Your task to perform on an android device: remove spam from my inbox in the gmail app Image 0: 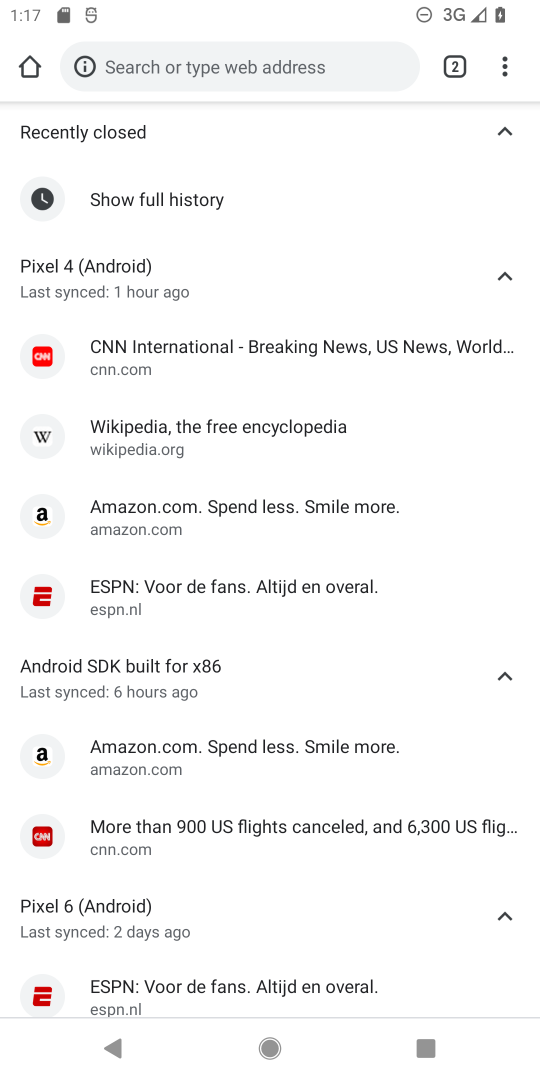
Step 0: press home button
Your task to perform on an android device: remove spam from my inbox in the gmail app Image 1: 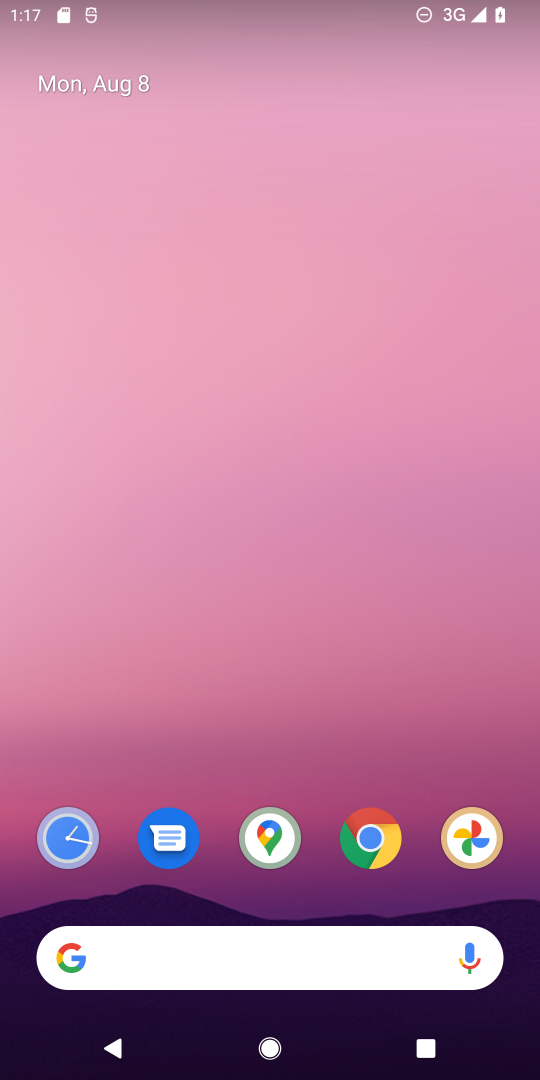
Step 1: drag from (200, 886) to (291, 267)
Your task to perform on an android device: remove spam from my inbox in the gmail app Image 2: 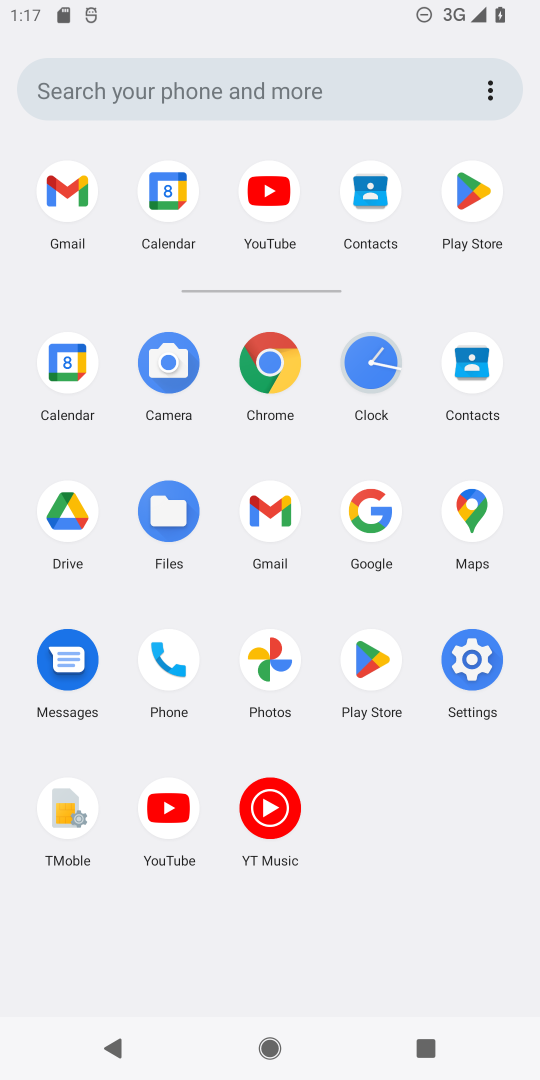
Step 2: click (65, 195)
Your task to perform on an android device: remove spam from my inbox in the gmail app Image 3: 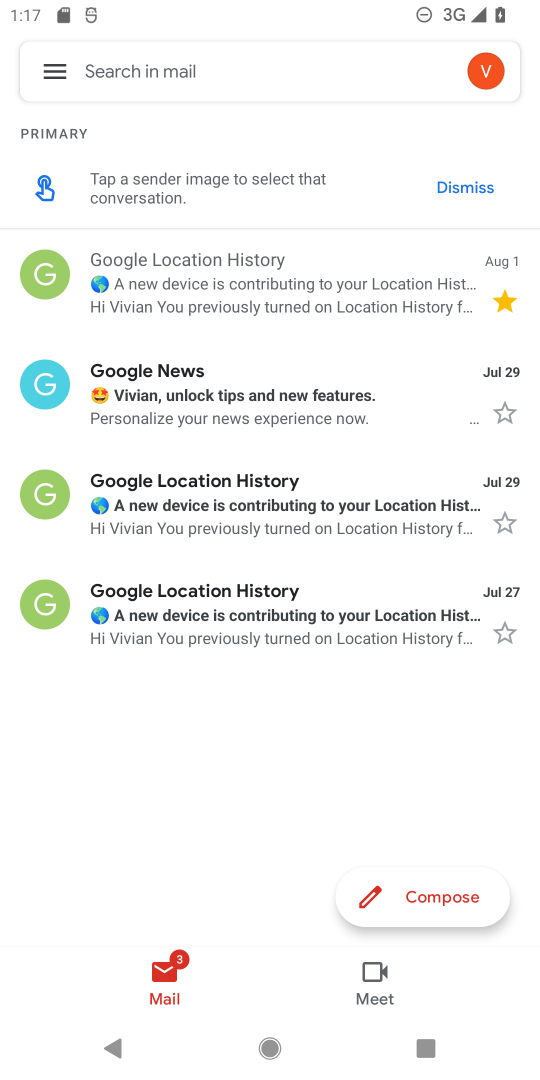
Step 3: click (48, 68)
Your task to perform on an android device: remove spam from my inbox in the gmail app Image 4: 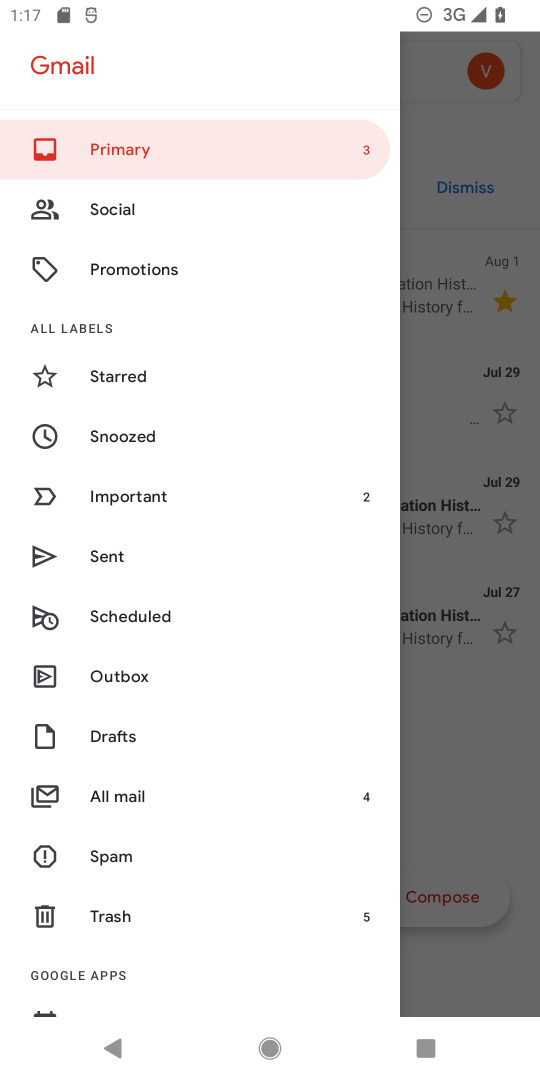
Step 4: click (101, 861)
Your task to perform on an android device: remove spam from my inbox in the gmail app Image 5: 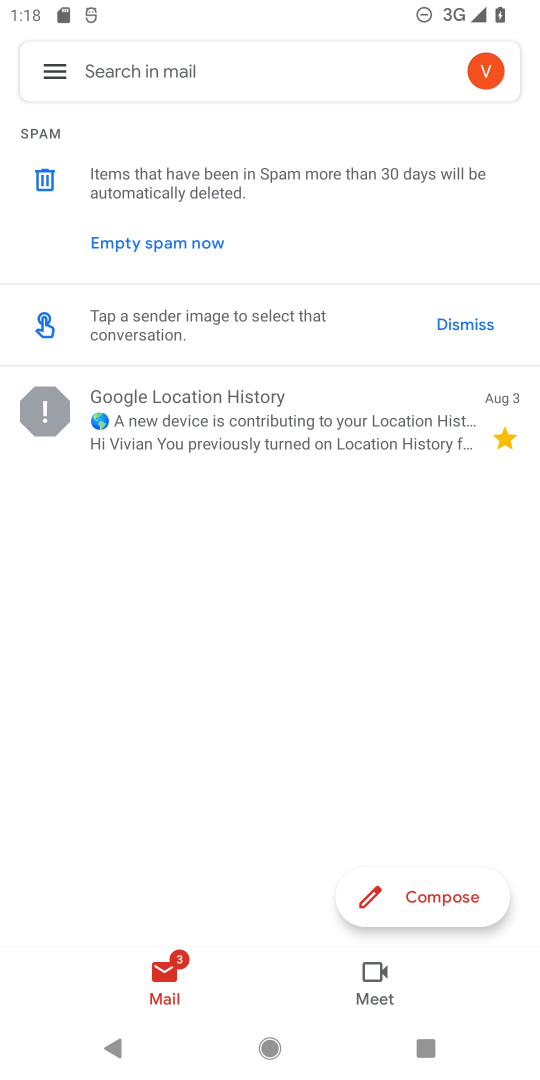
Step 5: click (60, 70)
Your task to perform on an android device: remove spam from my inbox in the gmail app Image 6: 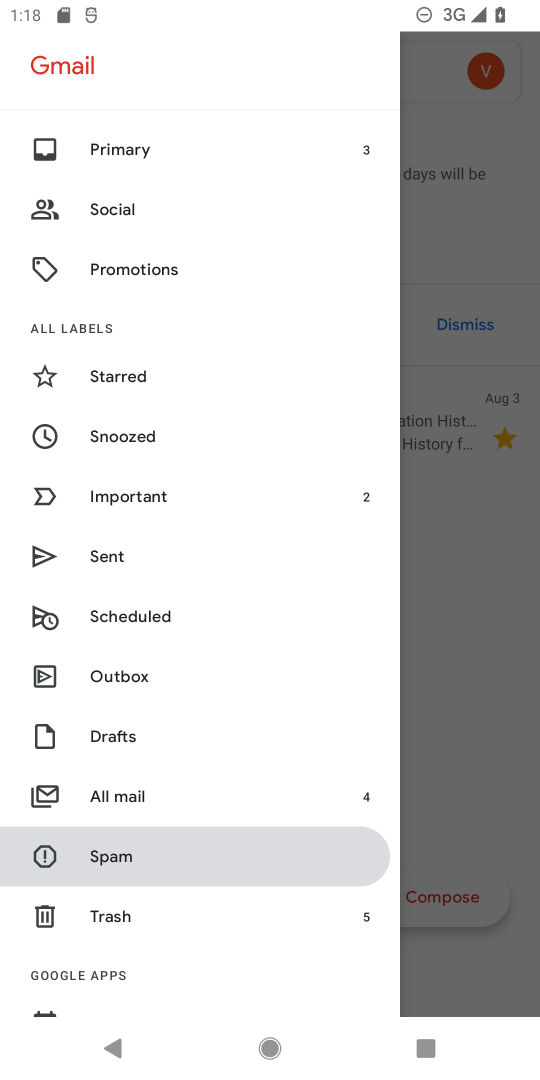
Step 6: click (119, 863)
Your task to perform on an android device: remove spam from my inbox in the gmail app Image 7: 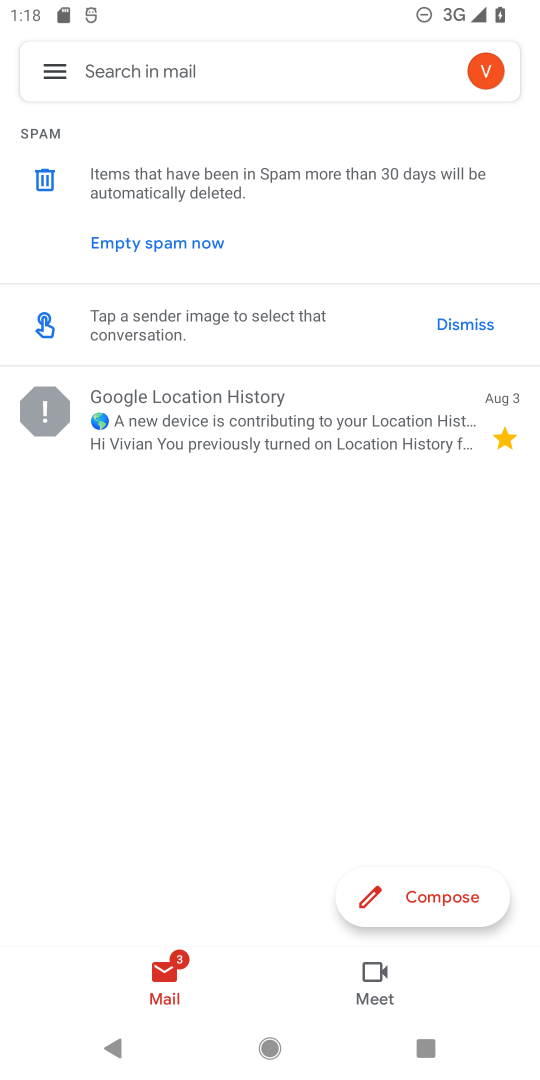
Step 7: click (166, 247)
Your task to perform on an android device: remove spam from my inbox in the gmail app Image 8: 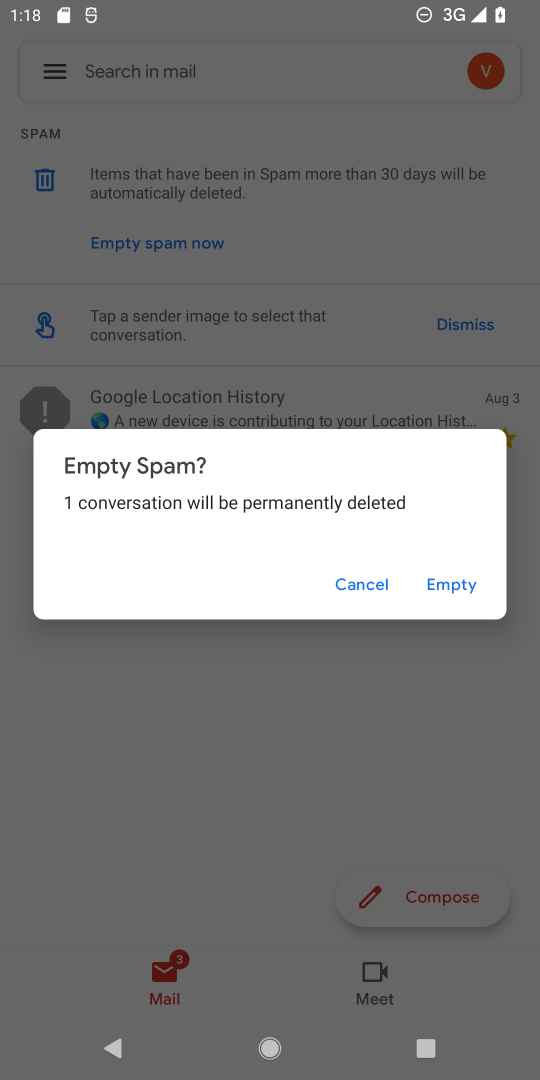
Step 8: click (451, 591)
Your task to perform on an android device: remove spam from my inbox in the gmail app Image 9: 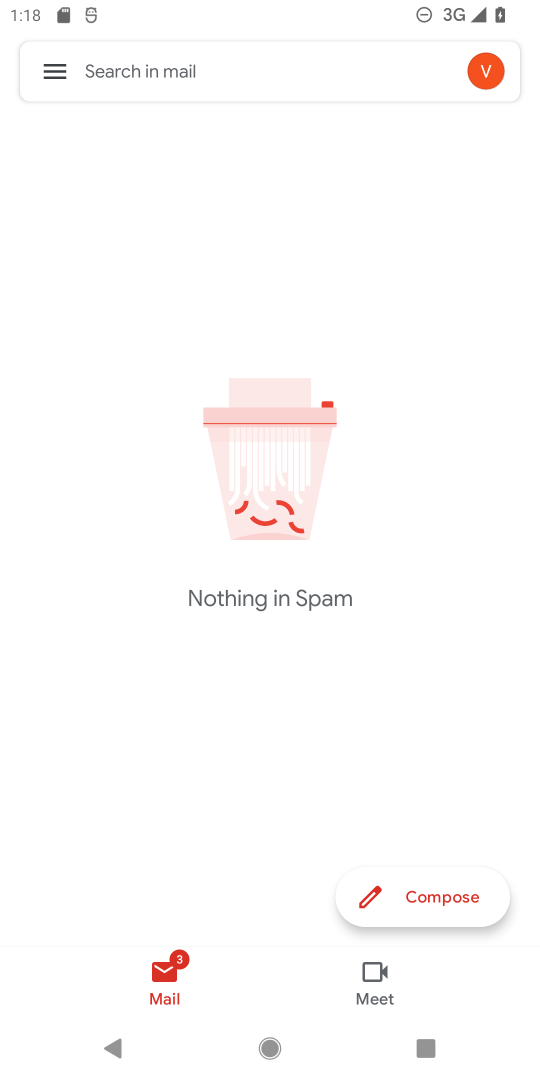
Step 9: task complete